Your task to perform on an android device: Open Youtube and go to the subscriptions tab Image 0: 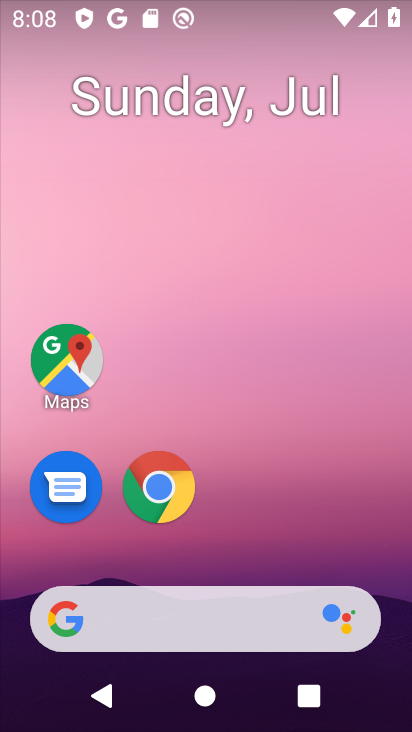
Step 0: drag from (260, 536) to (266, 47)
Your task to perform on an android device: Open Youtube and go to the subscriptions tab Image 1: 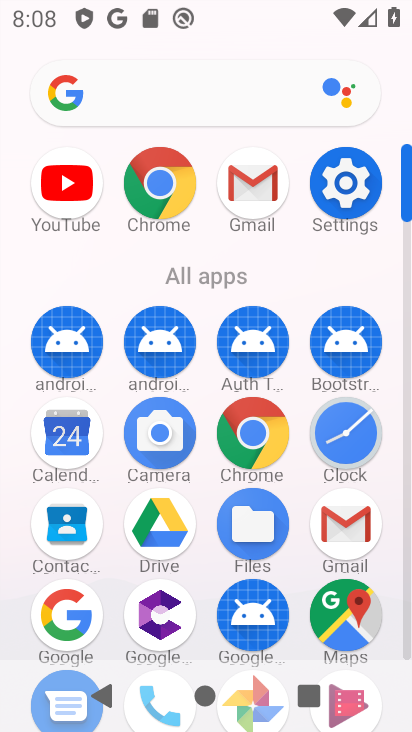
Step 1: click (57, 196)
Your task to perform on an android device: Open Youtube and go to the subscriptions tab Image 2: 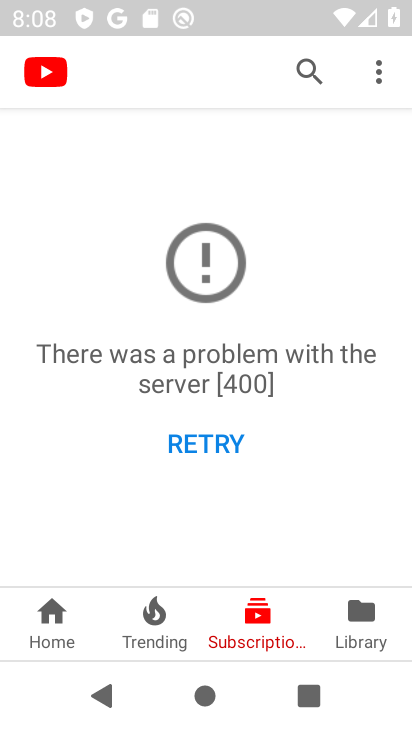
Step 2: task complete